Your task to perform on an android device: turn on airplane mode Image 0: 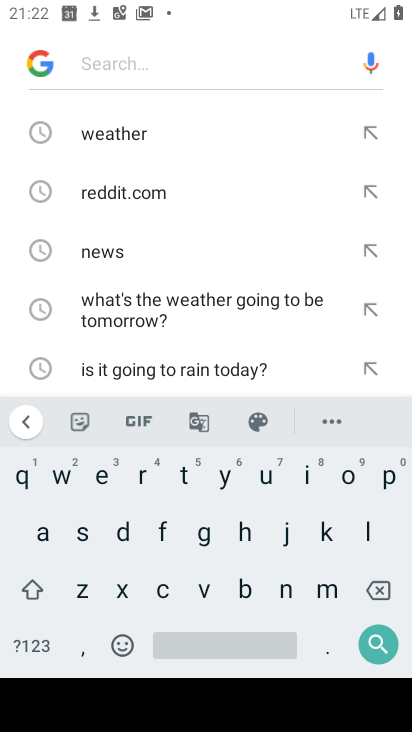
Step 0: press home button
Your task to perform on an android device: turn on airplane mode Image 1: 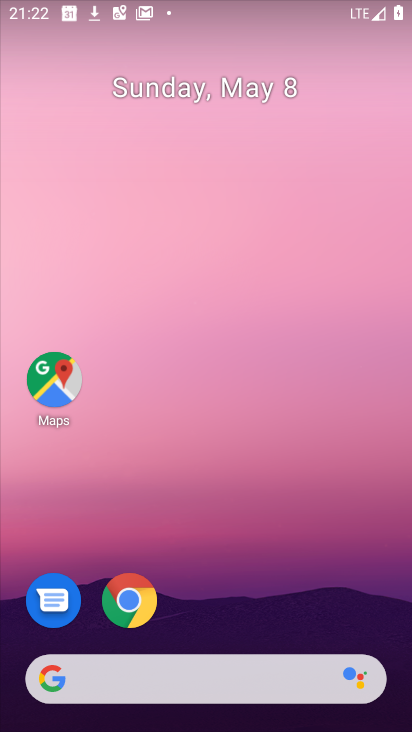
Step 1: drag from (274, 701) to (244, 194)
Your task to perform on an android device: turn on airplane mode Image 2: 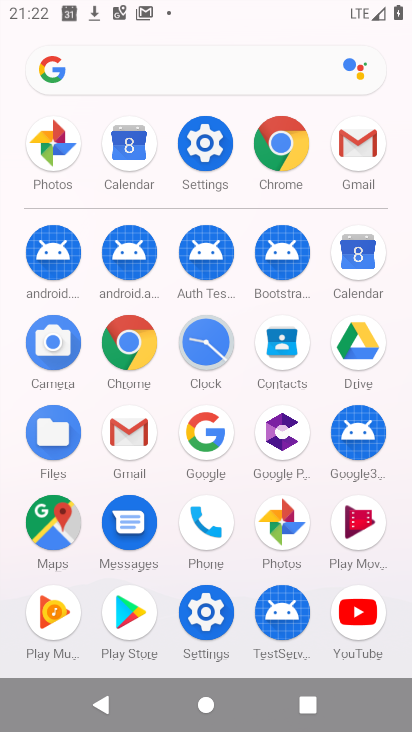
Step 2: click (214, 152)
Your task to perform on an android device: turn on airplane mode Image 3: 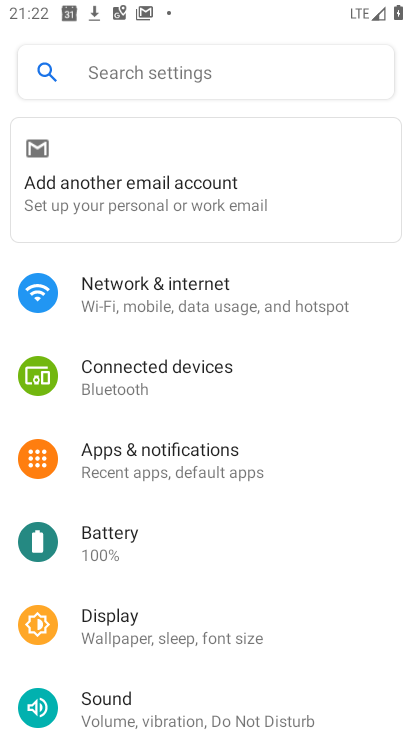
Step 3: click (205, 284)
Your task to perform on an android device: turn on airplane mode Image 4: 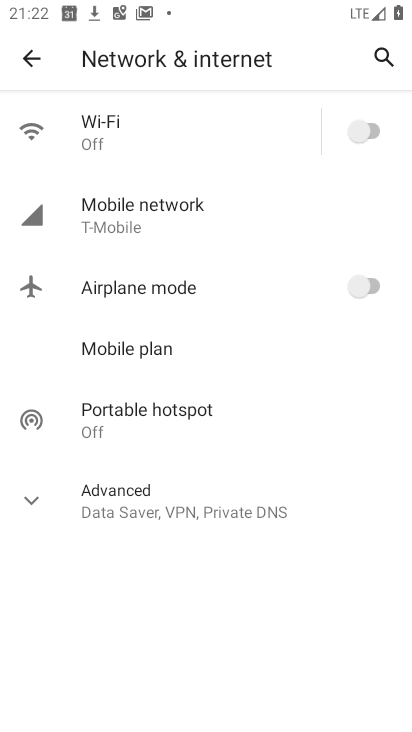
Step 4: click (318, 295)
Your task to perform on an android device: turn on airplane mode Image 5: 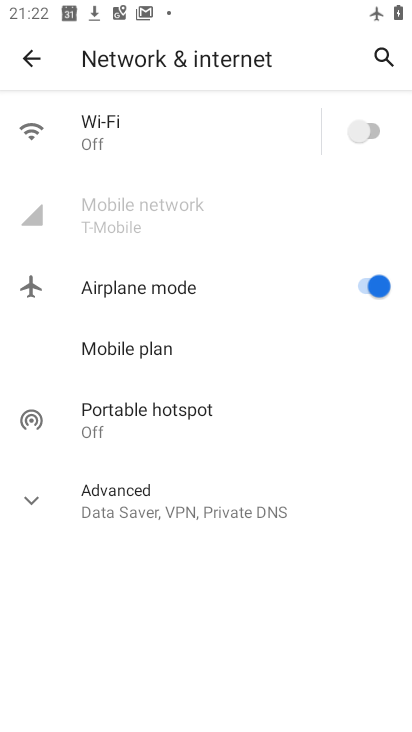
Step 5: task complete